Your task to perform on an android device: open app "Contacts" Image 0: 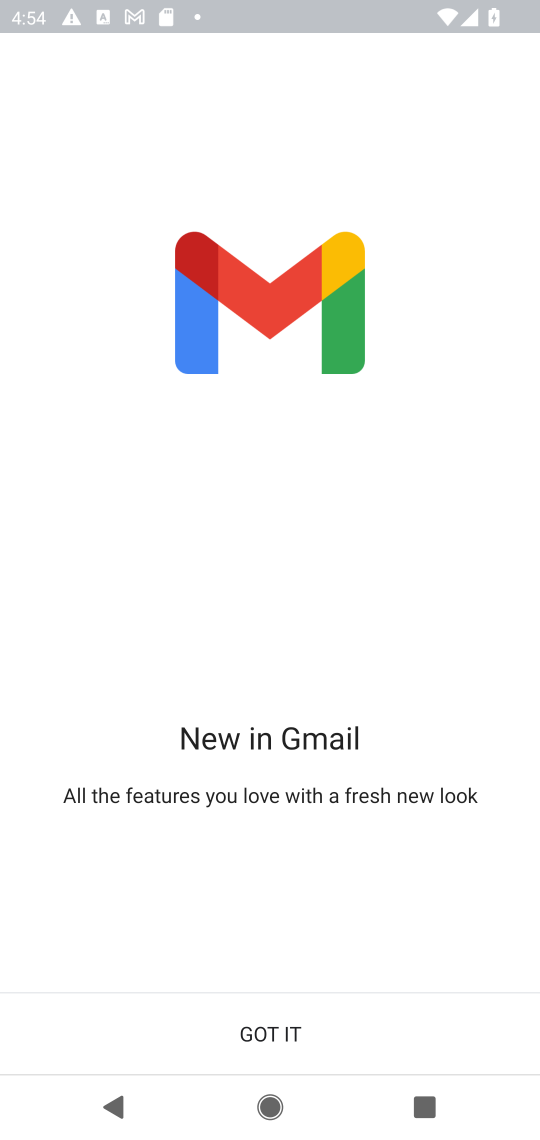
Step 0: press home button
Your task to perform on an android device: open app "Contacts" Image 1: 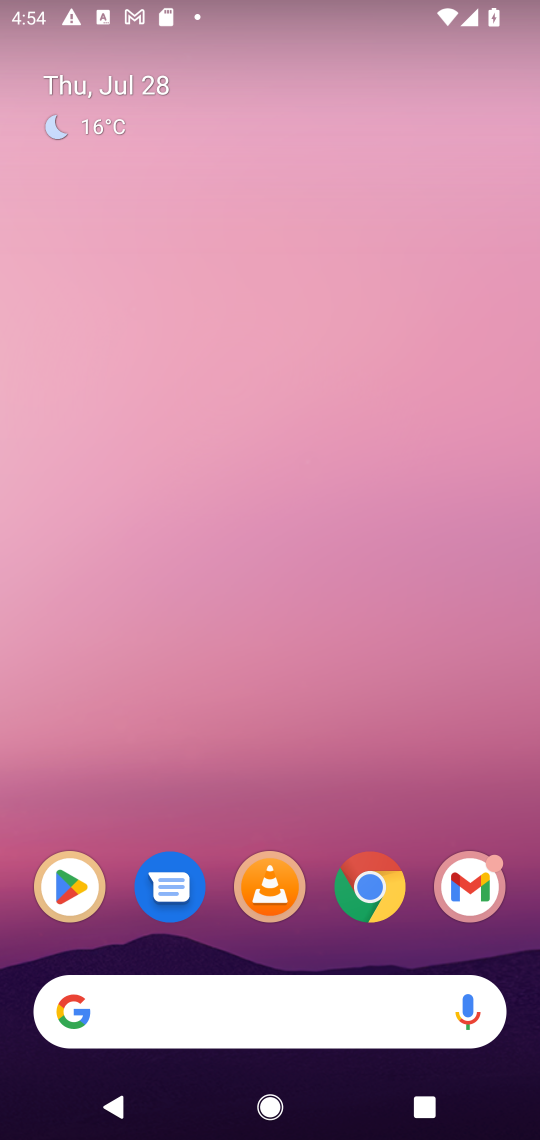
Step 1: drag from (265, 815) to (254, 24)
Your task to perform on an android device: open app "Contacts" Image 2: 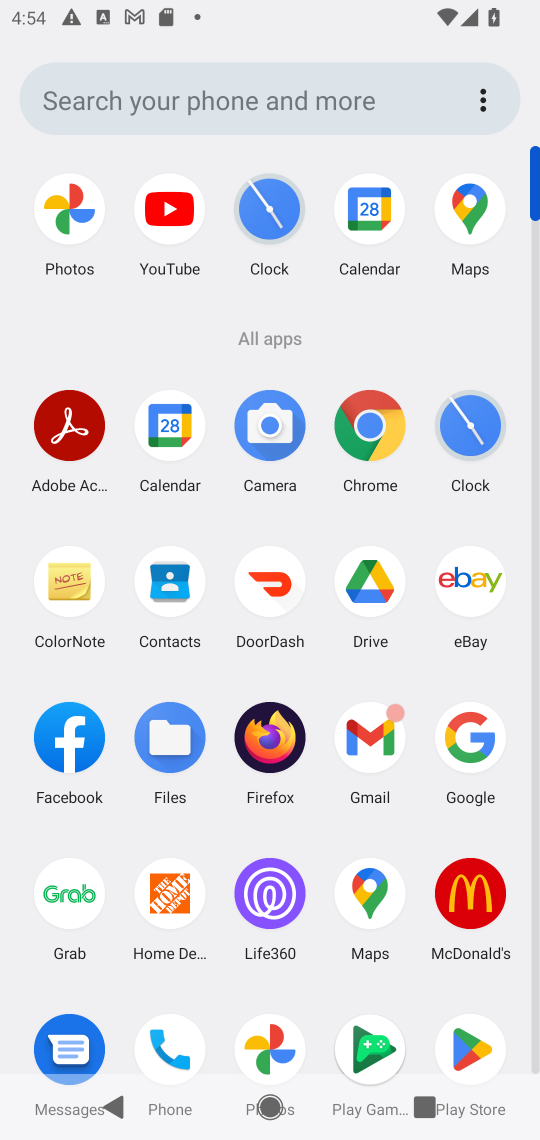
Step 2: click (164, 609)
Your task to perform on an android device: open app "Contacts" Image 3: 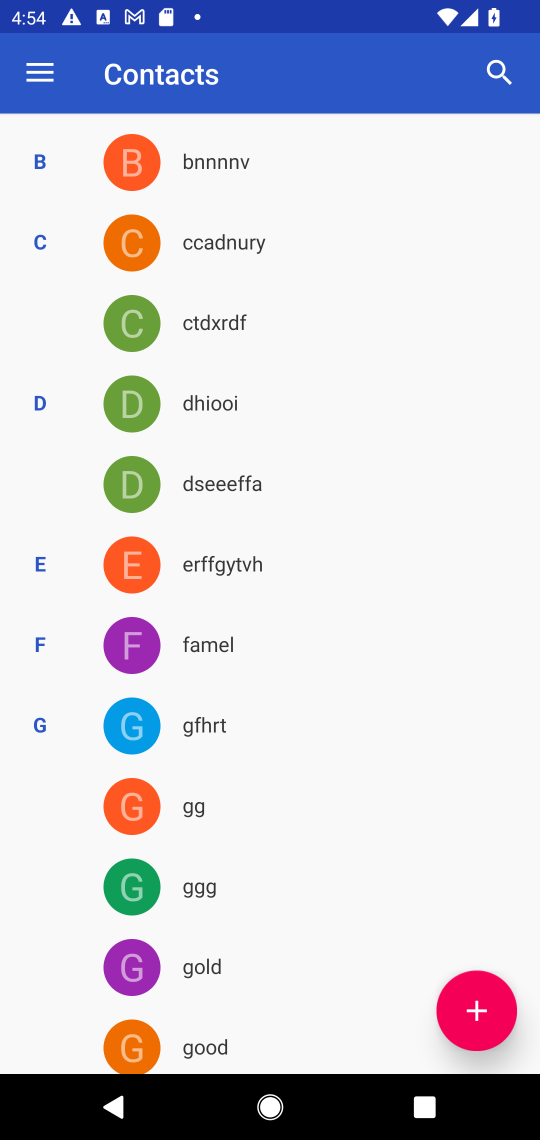
Step 3: task complete